Your task to perform on an android device: turn off airplane mode Image 0: 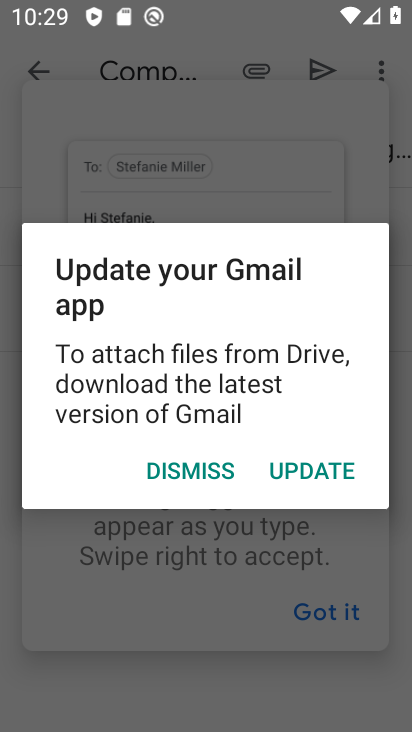
Step 0: press home button
Your task to perform on an android device: turn off airplane mode Image 1: 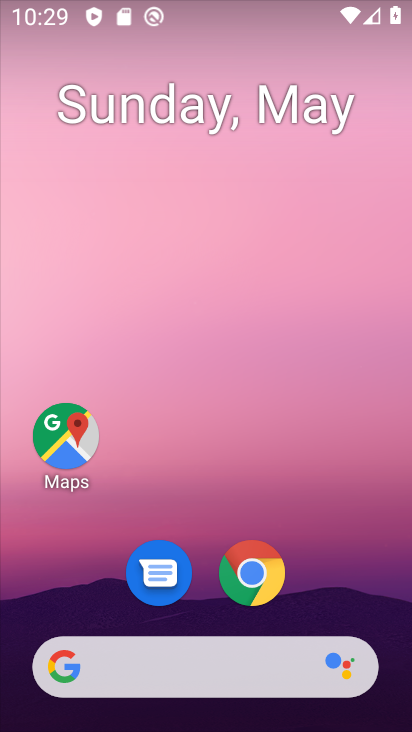
Step 1: task complete